Your task to perform on an android device: Open maps Image 0: 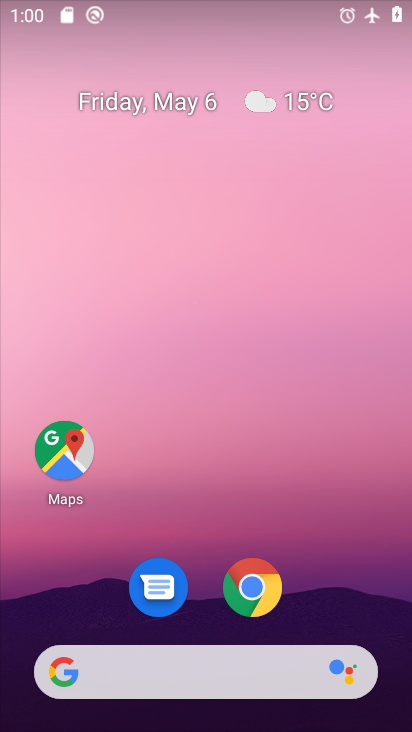
Step 0: click (56, 442)
Your task to perform on an android device: Open maps Image 1: 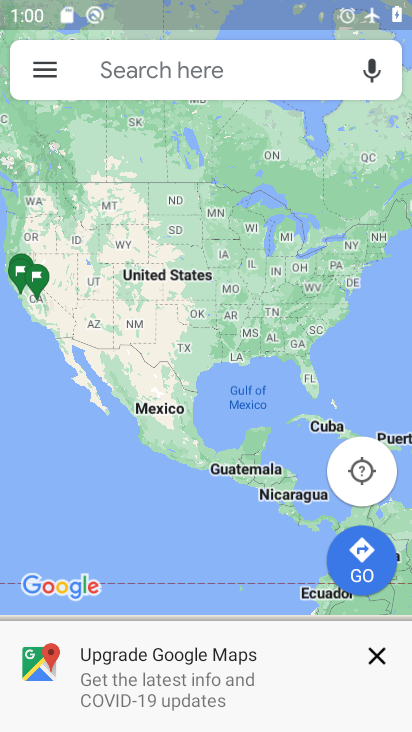
Step 1: task complete